Your task to perform on an android device: Go to Google Image 0: 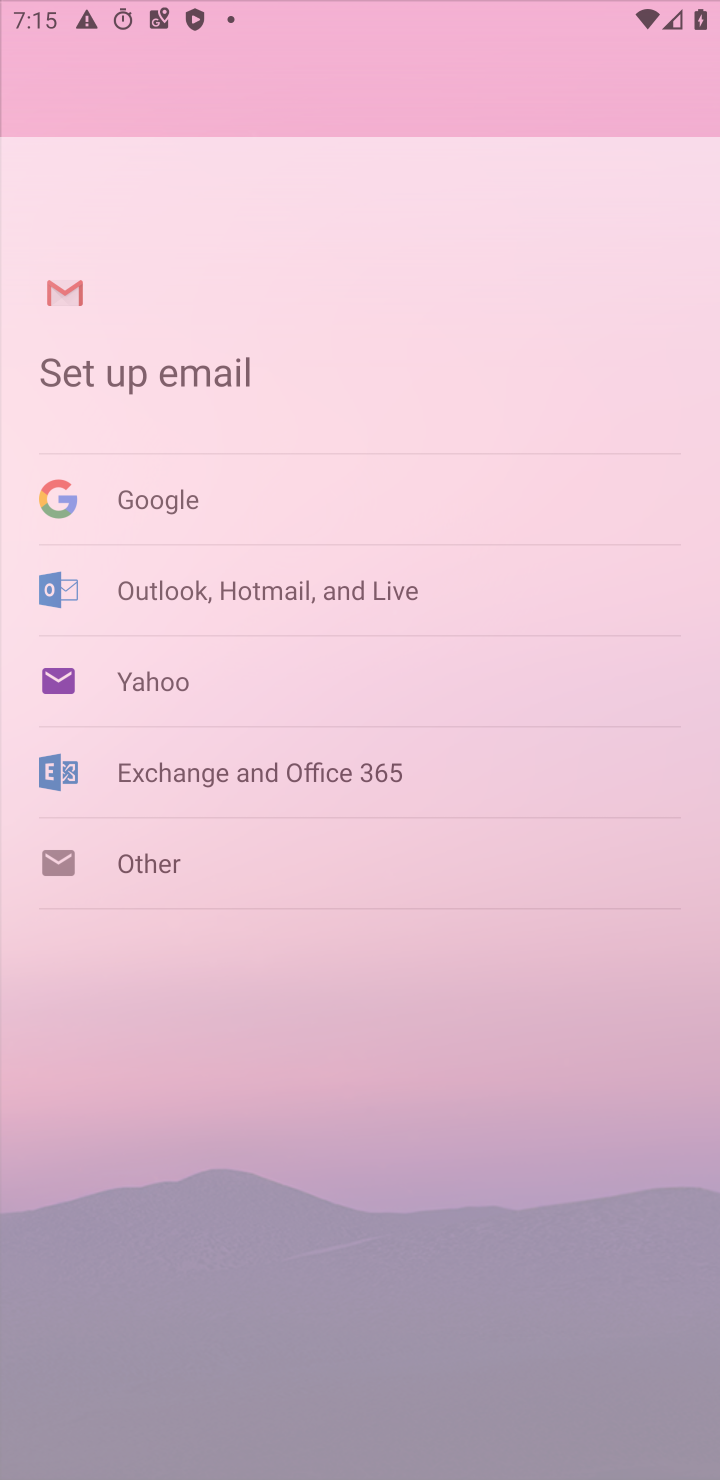
Step 0: press home button
Your task to perform on an android device: Go to Google Image 1: 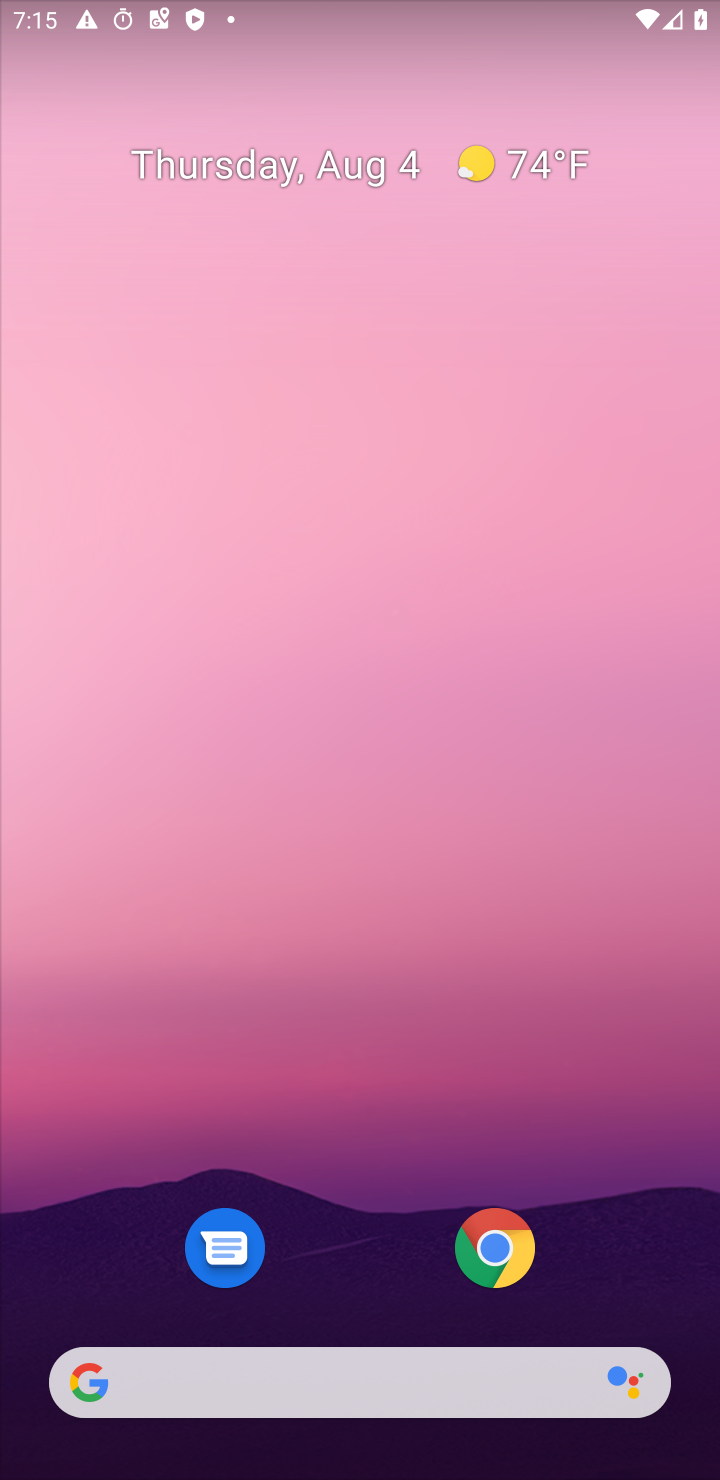
Step 1: drag from (346, 1402) to (468, 324)
Your task to perform on an android device: Go to Google Image 2: 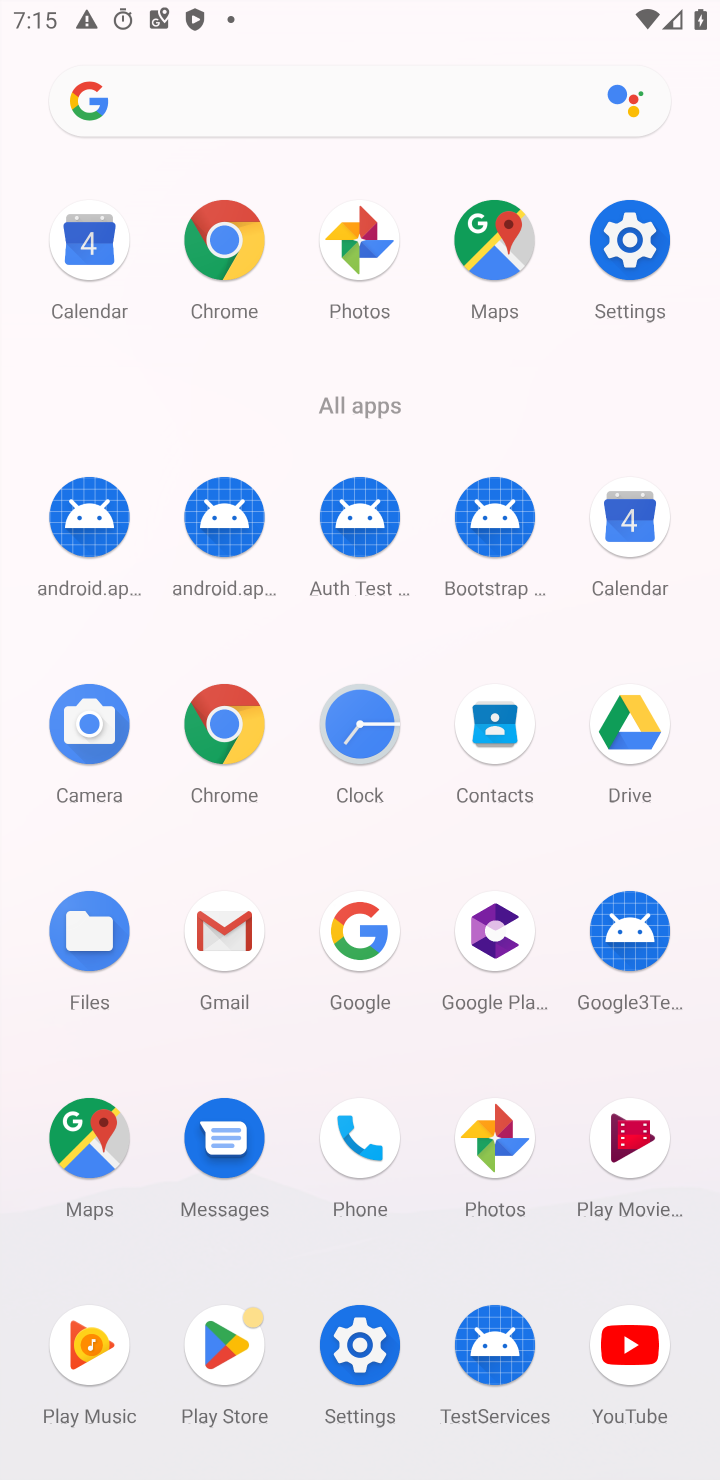
Step 2: click (79, 92)
Your task to perform on an android device: Go to Google Image 3: 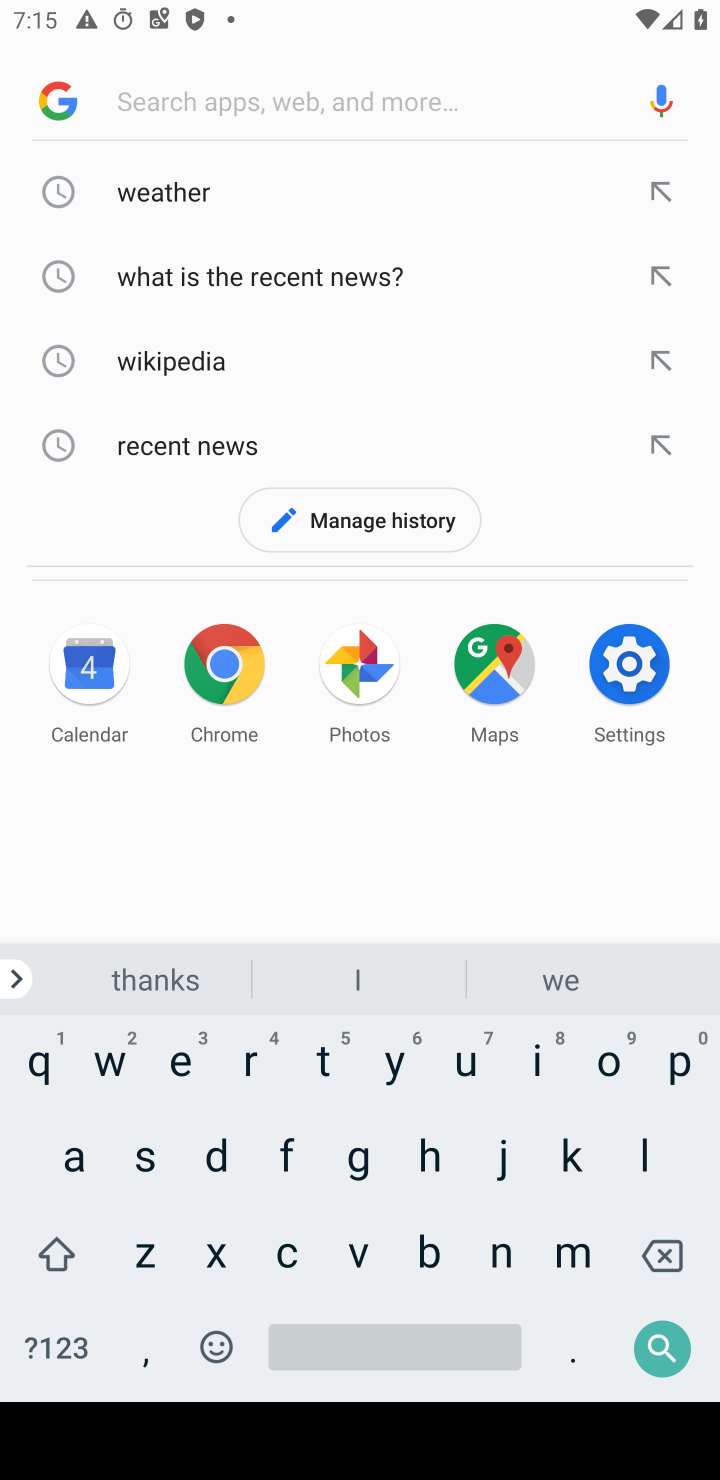
Step 3: click (67, 90)
Your task to perform on an android device: Go to Google Image 4: 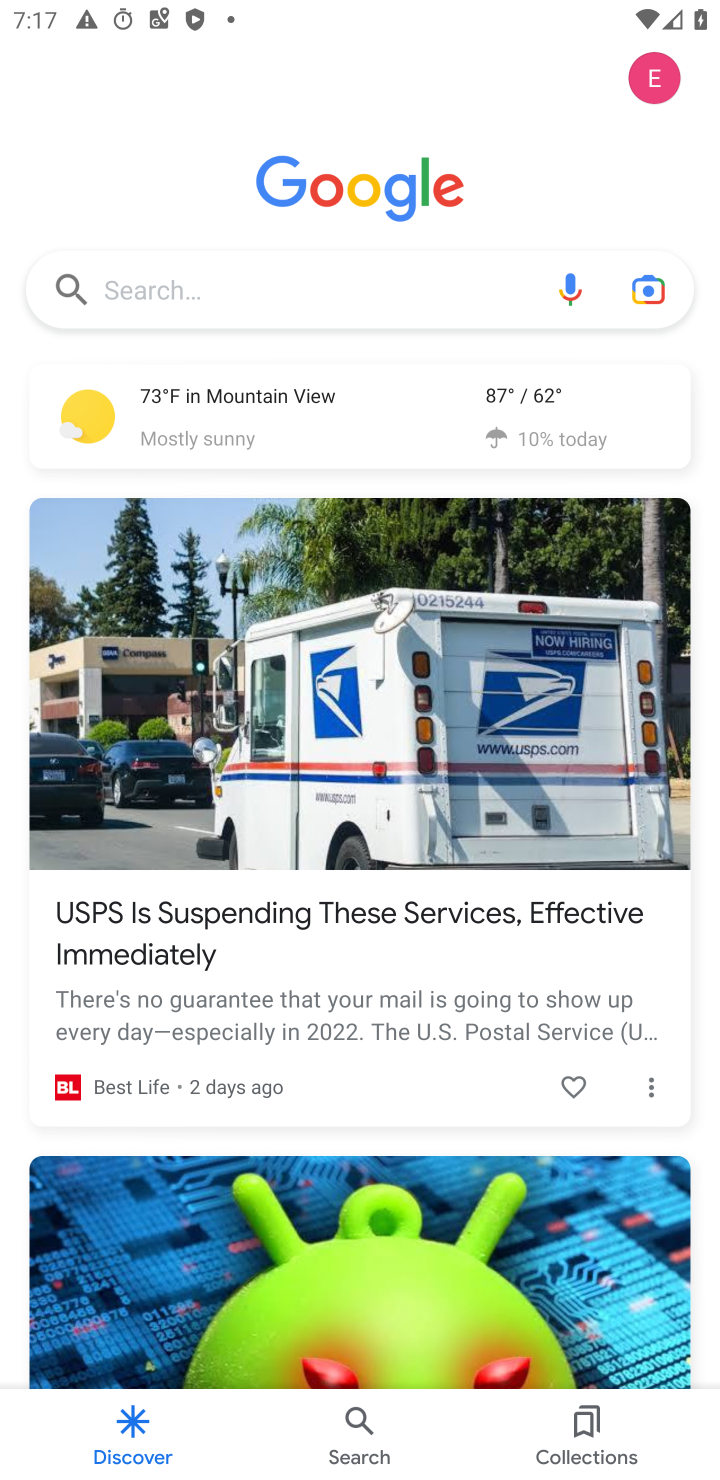
Step 4: task complete